Your task to perform on an android device: Search for vegetarian restaurants on Maps Image 0: 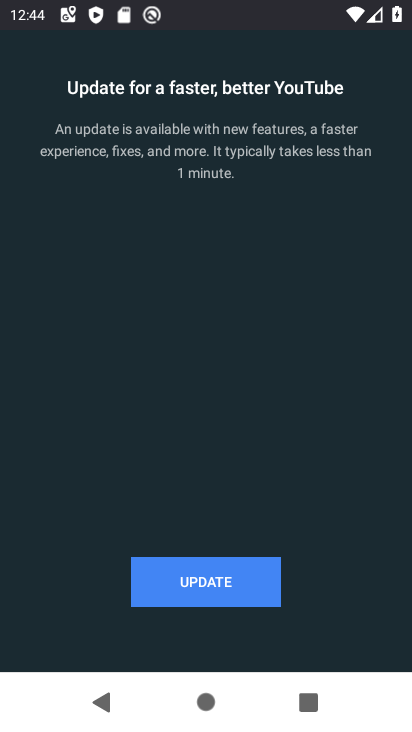
Step 0: press home button
Your task to perform on an android device: Search for vegetarian restaurants on Maps Image 1: 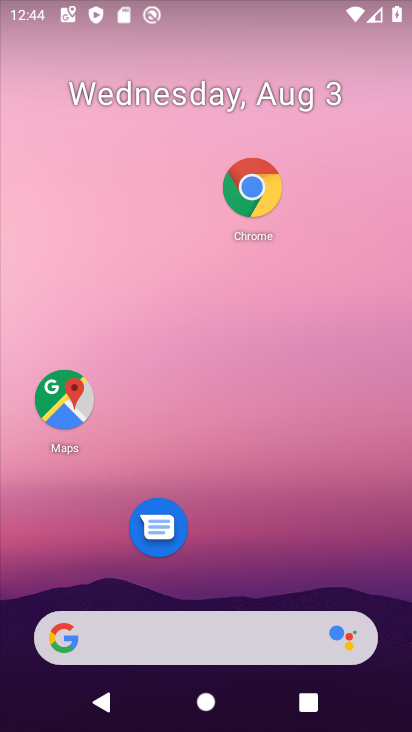
Step 1: click (52, 410)
Your task to perform on an android device: Search for vegetarian restaurants on Maps Image 2: 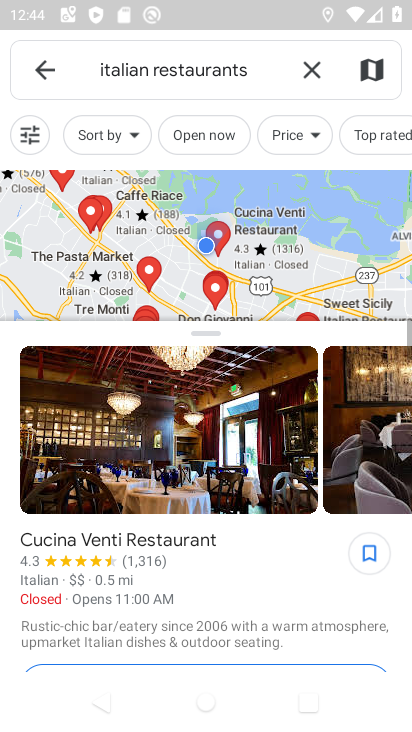
Step 2: click (172, 76)
Your task to perform on an android device: Search for vegetarian restaurants on Maps Image 3: 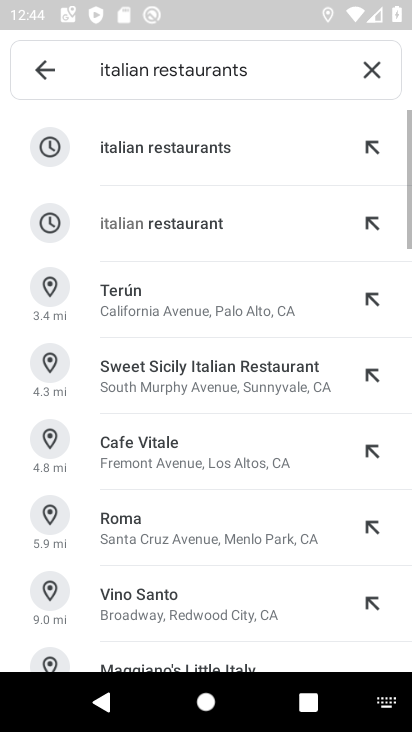
Step 3: click (370, 64)
Your task to perform on an android device: Search for vegetarian restaurants on Maps Image 4: 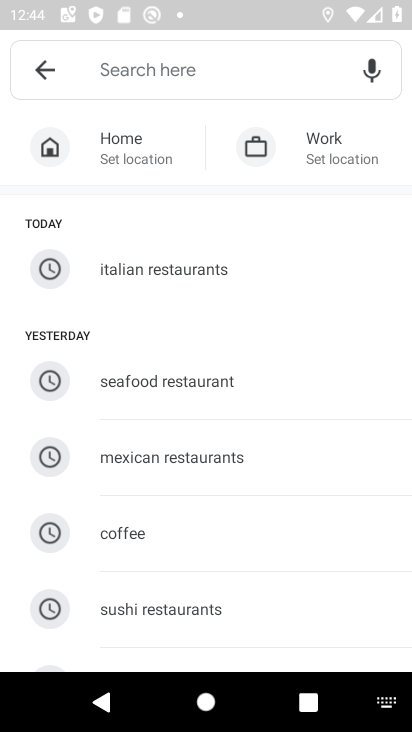
Step 4: type "vegetarian restaurants"
Your task to perform on an android device: Search for vegetarian restaurants on Maps Image 5: 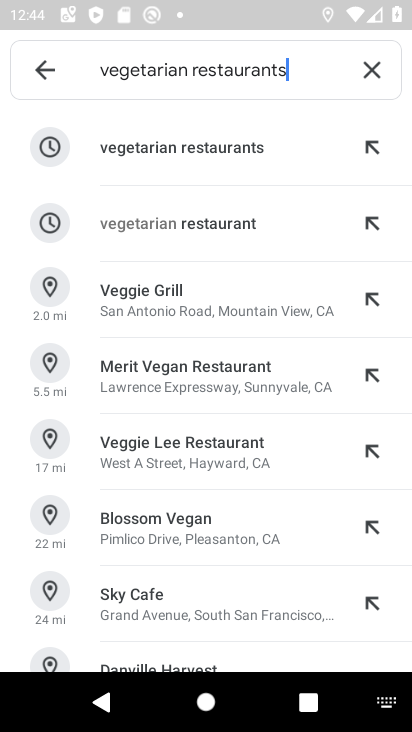
Step 5: click (242, 142)
Your task to perform on an android device: Search for vegetarian restaurants on Maps Image 6: 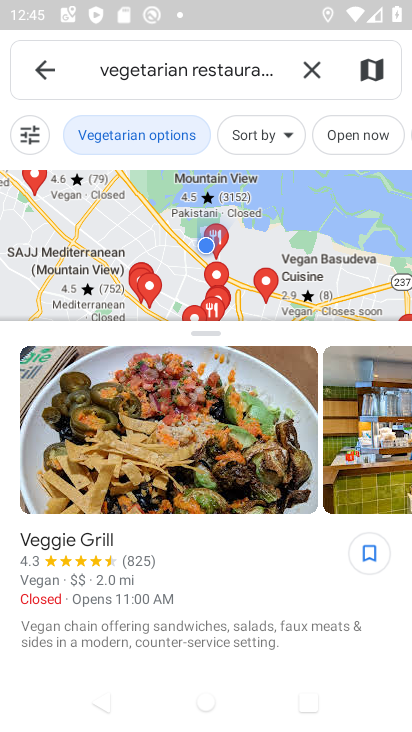
Step 6: task complete